Your task to perform on an android device: Open Chrome and go to settings Image 0: 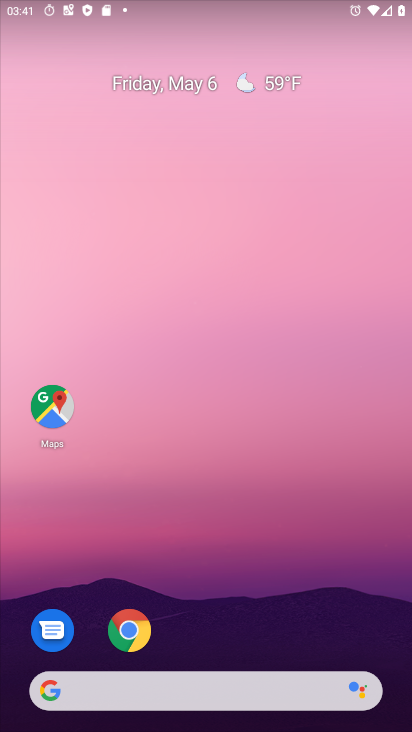
Step 0: click (128, 631)
Your task to perform on an android device: Open Chrome and go to settings Image 1: 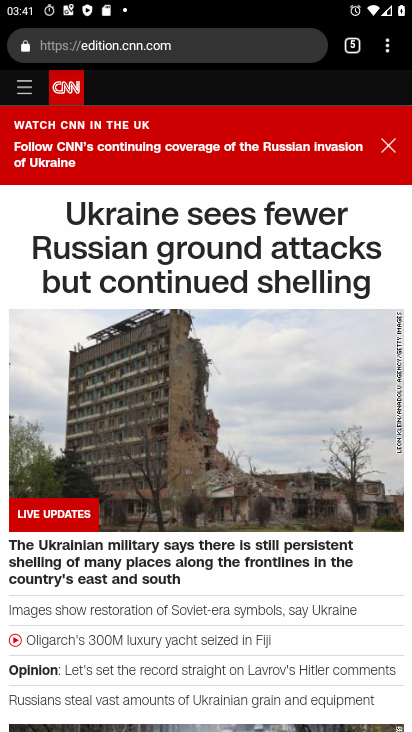
Step 1: click (382, 55)
Your task to perform on an android device: Open Chrome and go to settings Image 2: 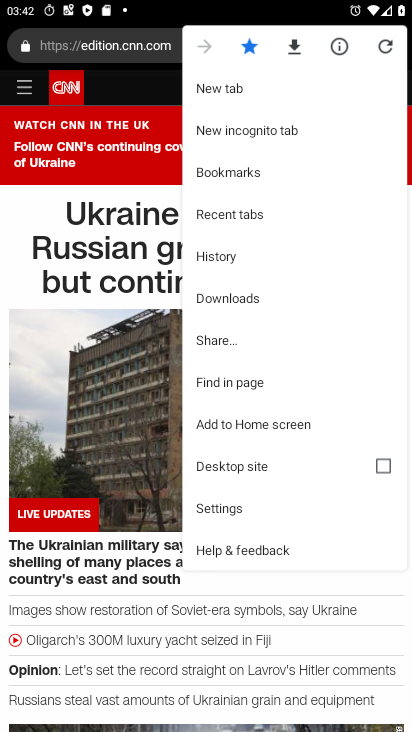
Step 2: click (238, 510)
Your task to perform on an android device: Open Chrome and go to settings Image 3: 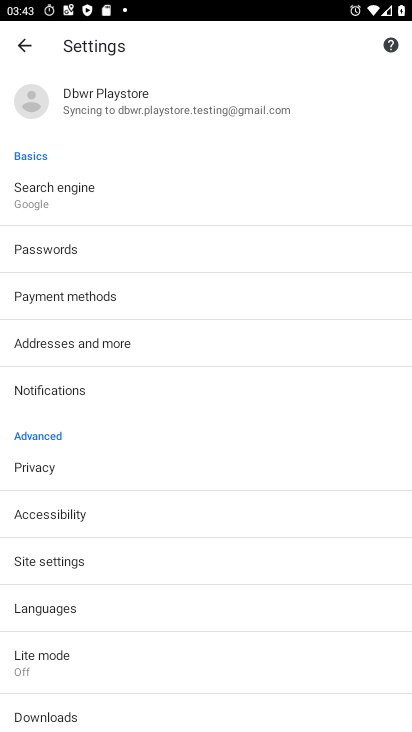
Step 3: task complete